Your task to perform on an android device: Go to Amazon Image 0: 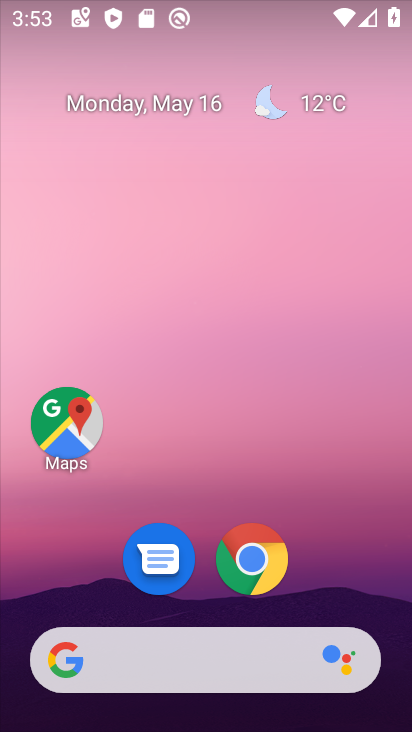
Step 0: click (253, 573)
Your task to perform on an android device: Go to Amazon Image 1: 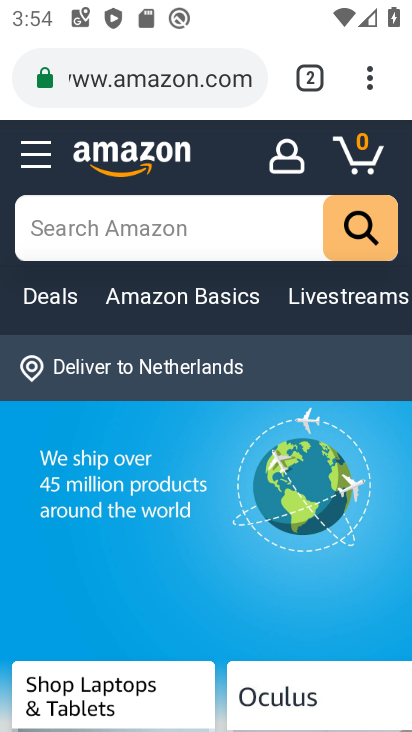
Step 1: task complete